Your task to perform on an android device: Open the map Image 0: 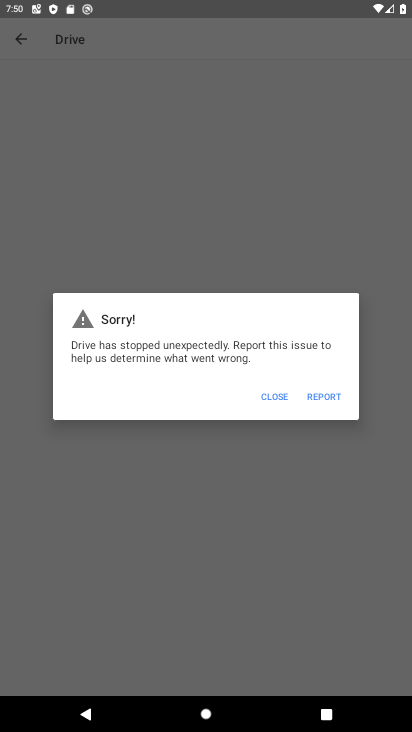
Step 0: press home button
Your task to perform on an android device: Open the map Image 1: 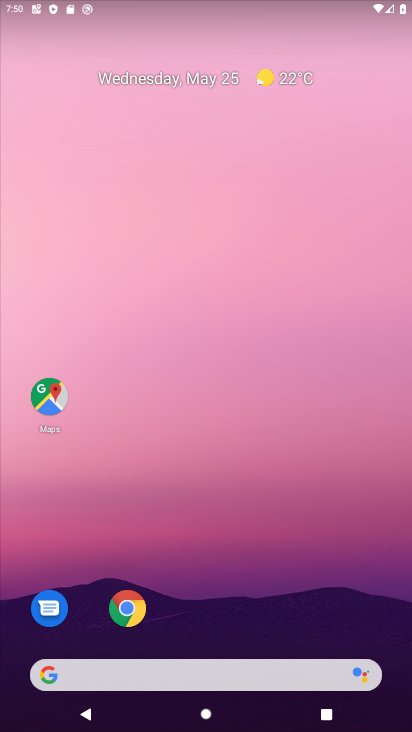
Step 1: click (48, 396)
Your task to perform on an android device: Open the map Image 2: 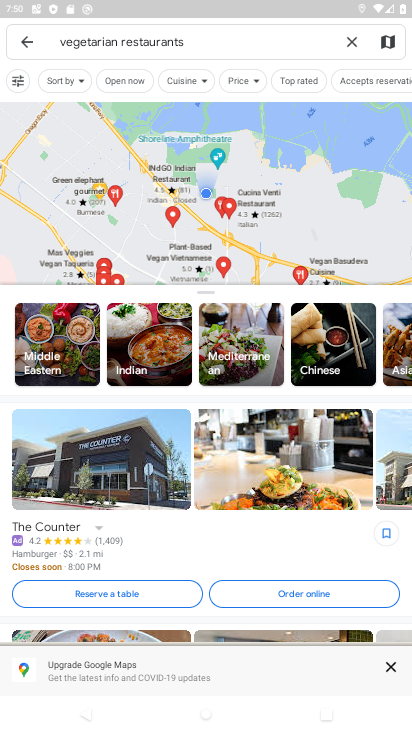
Step 2: click (349, 38)
Your task to perform on an android device: Open the map Image 3: 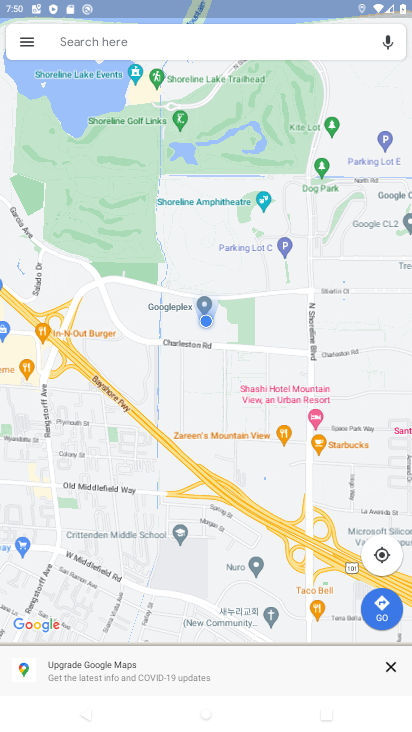
Step 3: task complete